Your task to perform on an android device: set the timer Image 0: 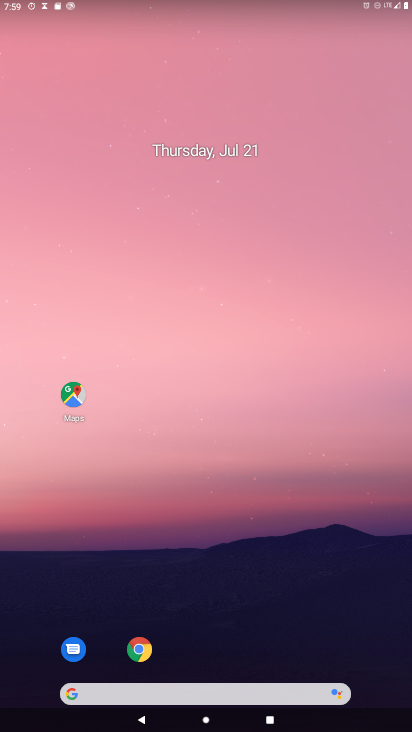
Step 0: drag from (301, 493) to (234, 93)
Your task to perform on an android device: set the timer Image 1: 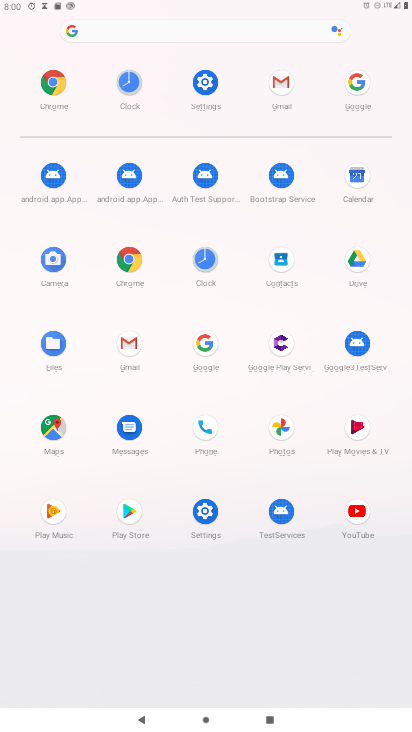
Step 1: click (198, 266)
Your task to perform on an android device: set the timer Image 2: 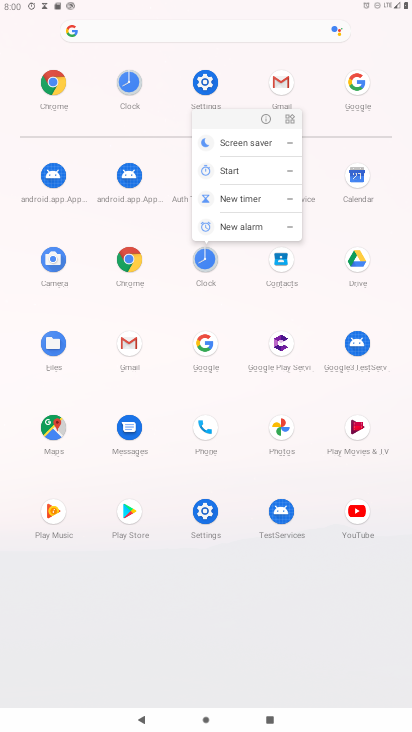
Step 2: click (196, 263)
Your task to perform on an android device: set the timer Image 3: 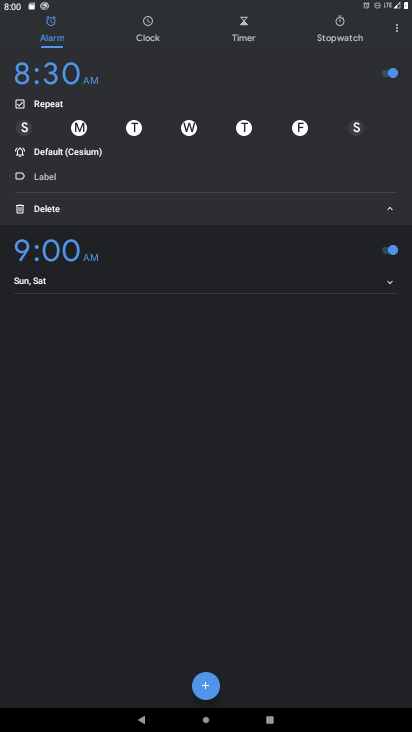
Step 3: click (270, 34)
Your task to perform on an android device: set the timer Image 4: 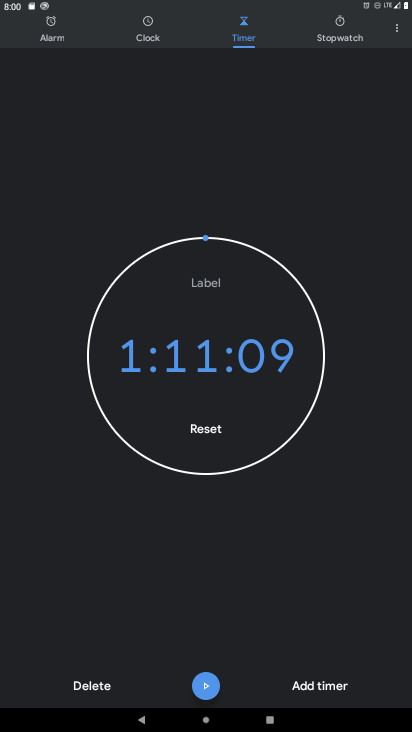
Step 4: click (205, 681)
Your task to perform on an android device: set the timer Image 5: 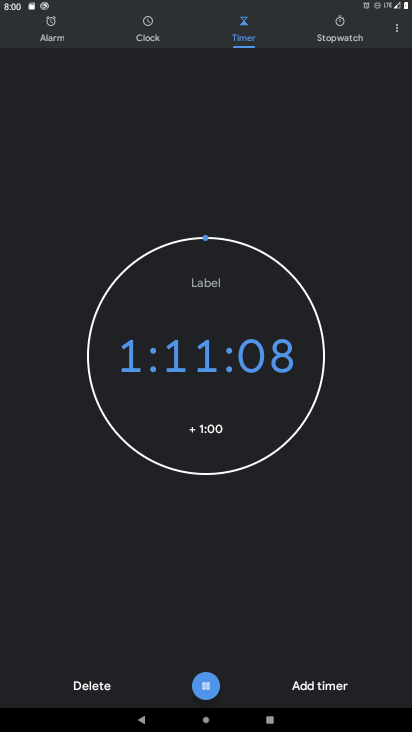
Step 5: click (205, 681)
Your task to perform on an android device: set the timer Image 6: 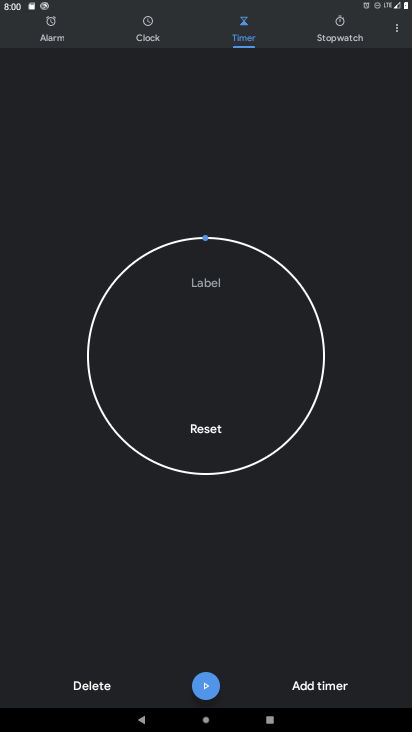
Step 6: click (205, 681)
Your task to perform on an android device: set the timer Image 7: 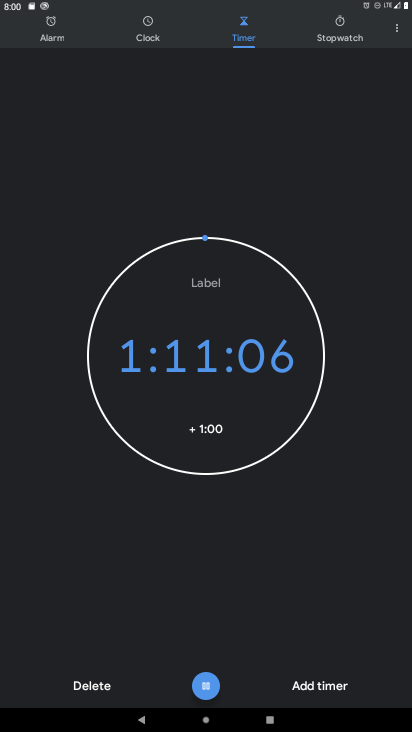
Step 7: task complete